Your task to perform on an android device: turn on the 12-hour format for clock Image 0: 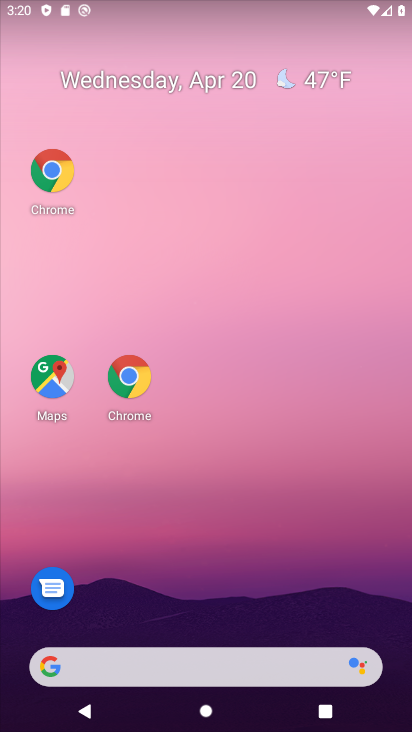
Step 0: drag from (225, 595) to (253, 126)
Your task to perform on an android device: turn on the 12-hour format for clock Image 1: 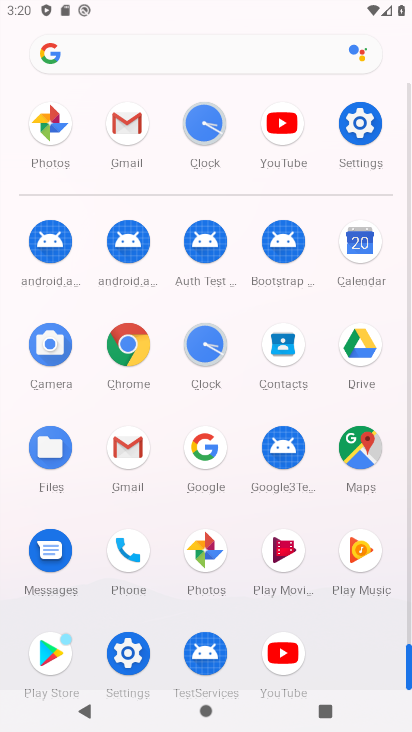
Step 1: click (201, 341)
Your task to perform on an android device: turn on the 12-hour format for clock Image 2: 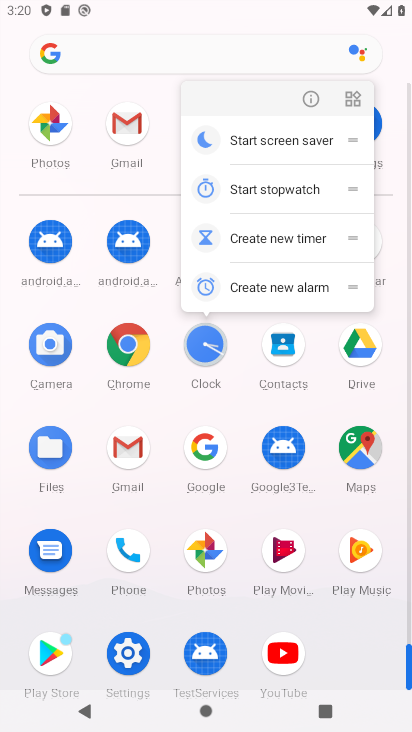
Step 2: click (186, 348)
Your task to perform on an android device: turn on the 12-hour format for clock Image 3: 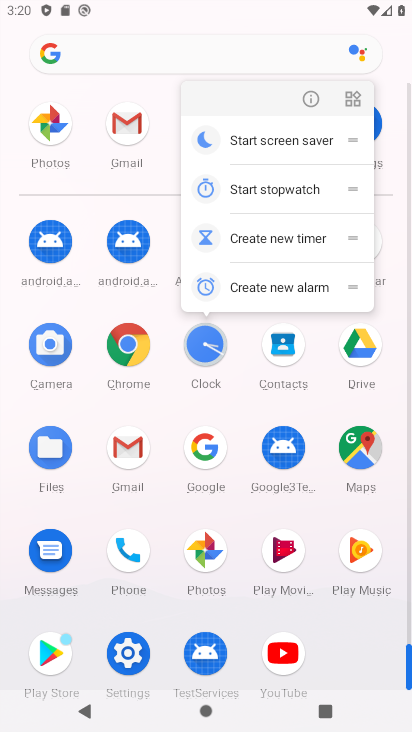
Step 3: click (194, 348)
Your task to perform on an android device: turn on the 12-hour format for clock Image 4: 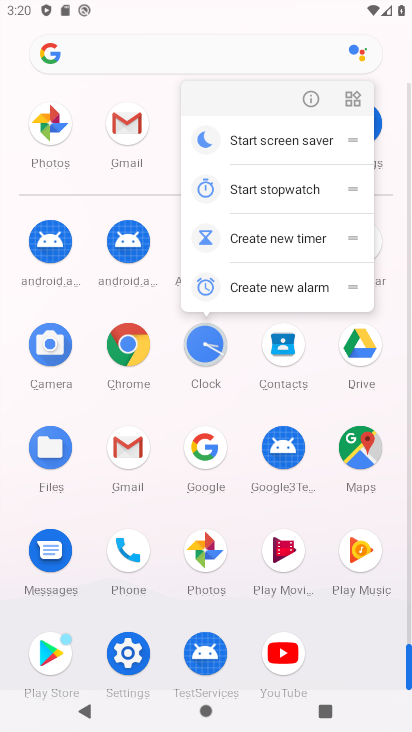
Step 4: click (210, 351)
Your task to perform on an android device: turn on the 12-hour format for clock Image 5: 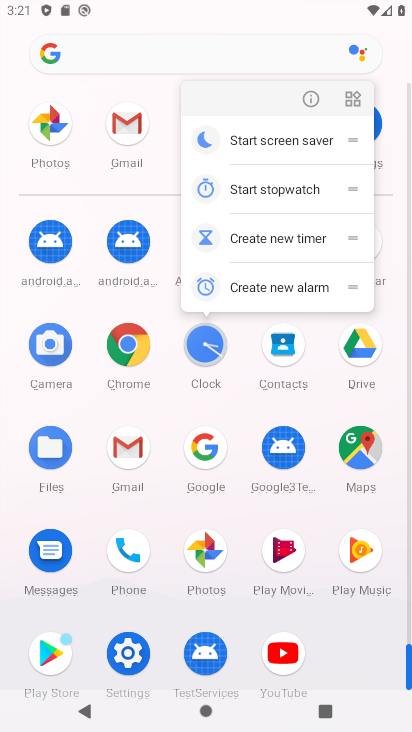
Step 5: click (210, 351)
Your task to perform on an android device: turn on the 12-hour format for clock Image 6: 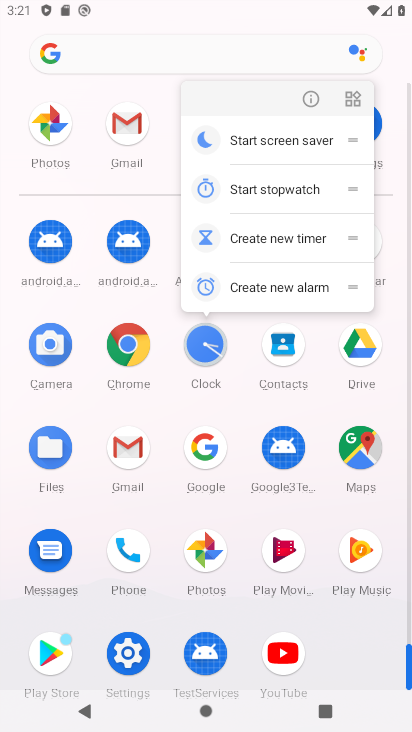
Step 6: click (210, 351)
Your task to perform on an android device: turn on the 12-hour format for clock Image 7: 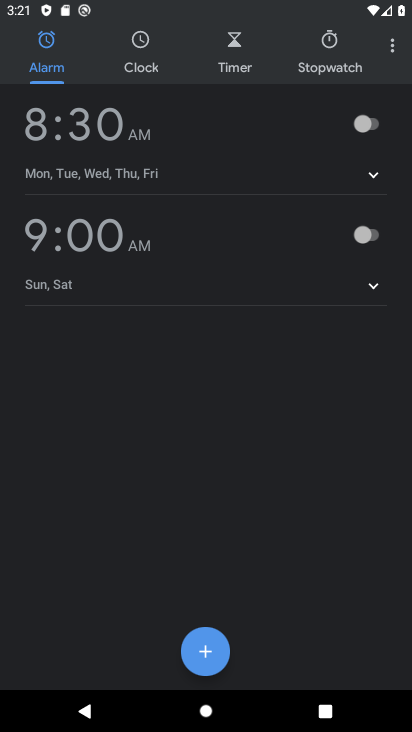
Step 7: click (394, 53)
Your task to perform on an android device: turn on the 12-hour format for clock Image 8: 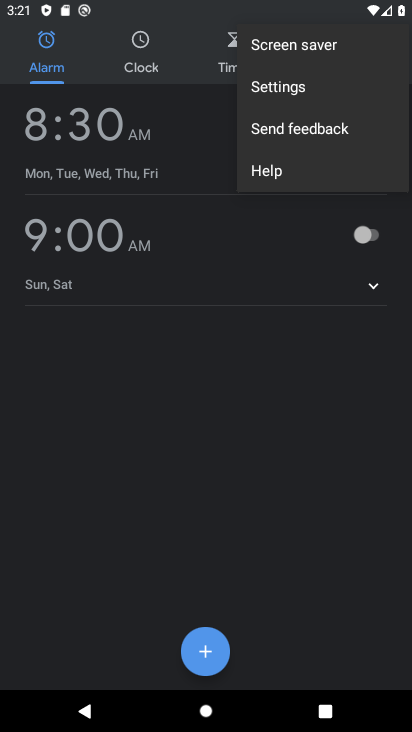
Step 8: click (291, 94)
Your task to perform on an android device: turn on the 12-hour format for clock Image 9: 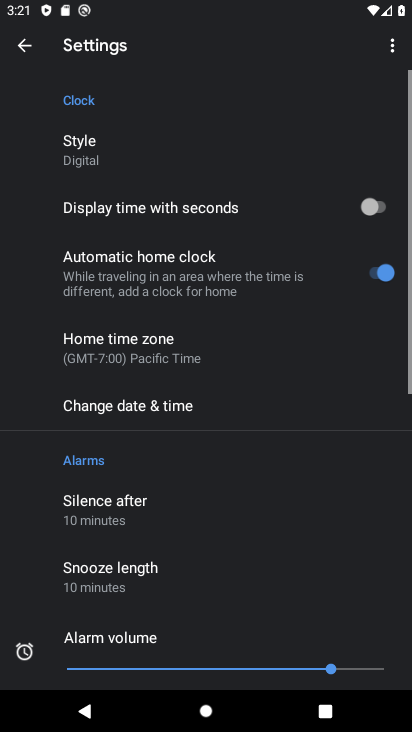
Step 9: drag from (321, 628) to (289, 166)
Your task to perform on an android device: turn on the 12-hour format for clock Image 10: 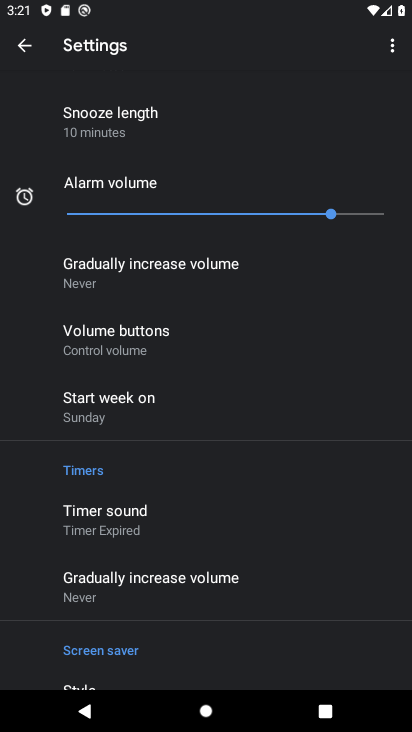
Step 10: drag from (228, 150) to (216, 596)
Your task to perform on an android device: turn on the 12-hour format for clock Image 11: 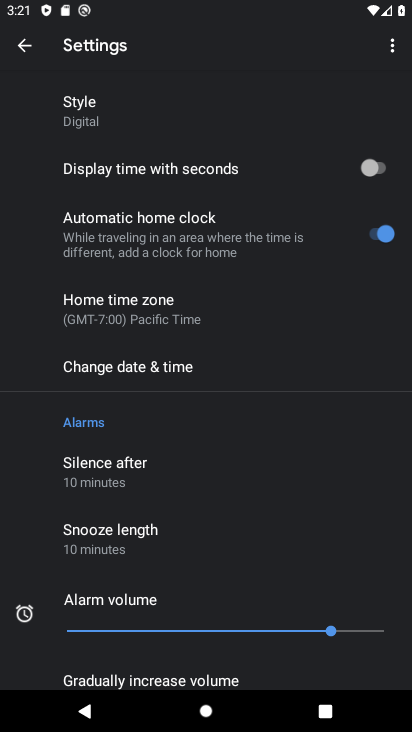
Step 11: click (188, 378)
Your task to perform on an android device: turn on the 12-hour format for clock Image 12: 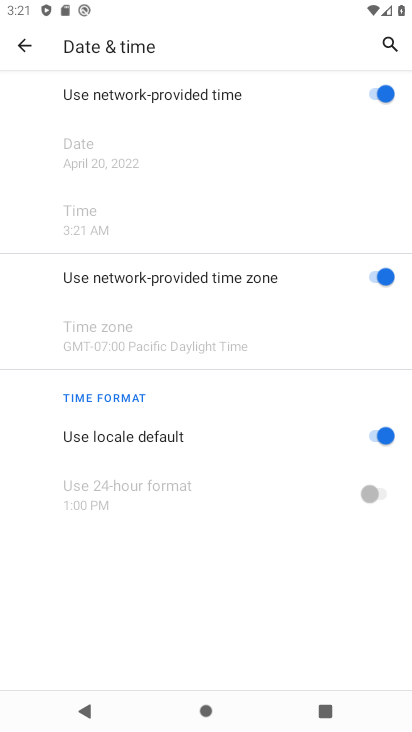
Step 12: click (386, 437)
Your task to perform on an android device: turn on the 12-hour format for clock Image 13: 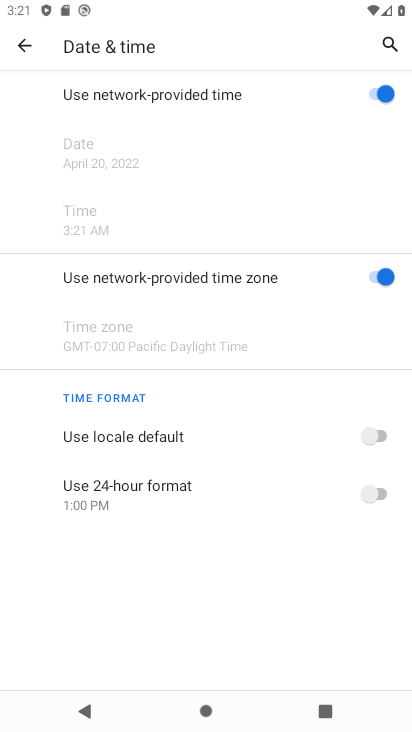
Step 13: task complete